Your task to perform on an android device: Do I have any events tomorrow? Image 0: 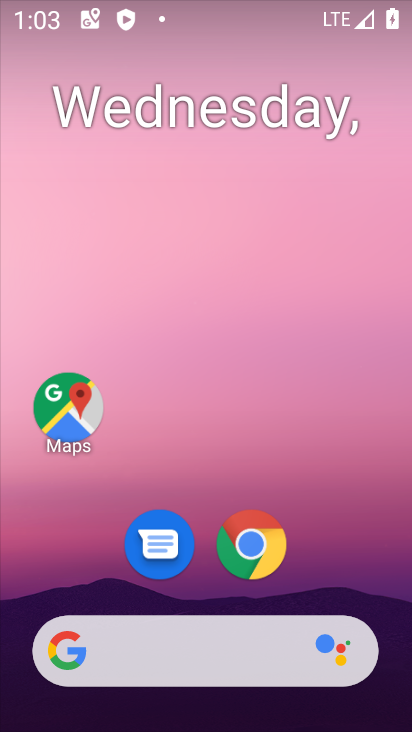
Step 0: drag from (393, 628) to (314, 95)
Your task to perform on an android device: Do I have any events tomorrow? Image 1: 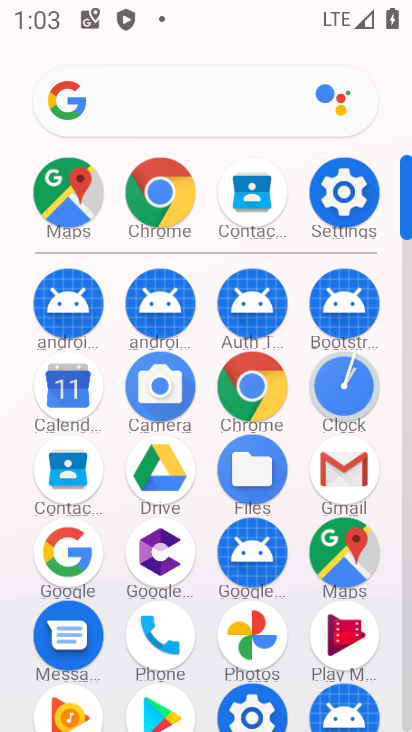
Step 1: click (71, 398)
Your task to perform on an android device: Do I have any events tomorrow? Image 2: 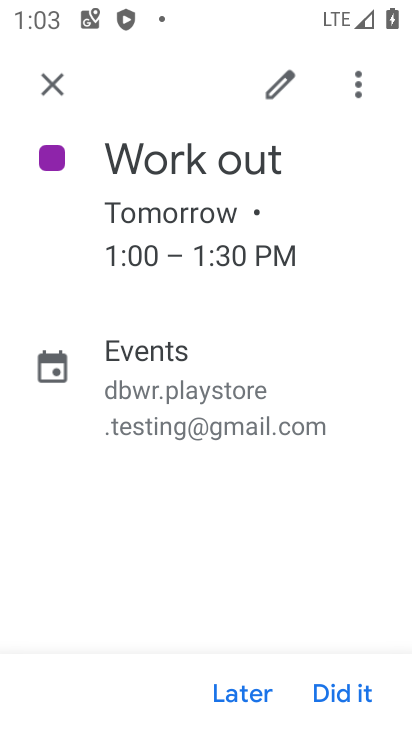
Step 2: click (40, 73)
Your task to perform on an android device: Do I have any events tomorrow? Image 3: 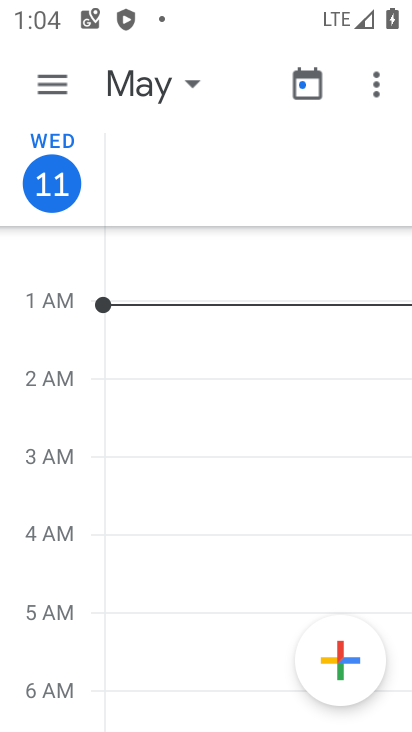
Step 3: click (171, 70)
Your task to perform on an android device: Do I have any events tomorrow? Image 4: 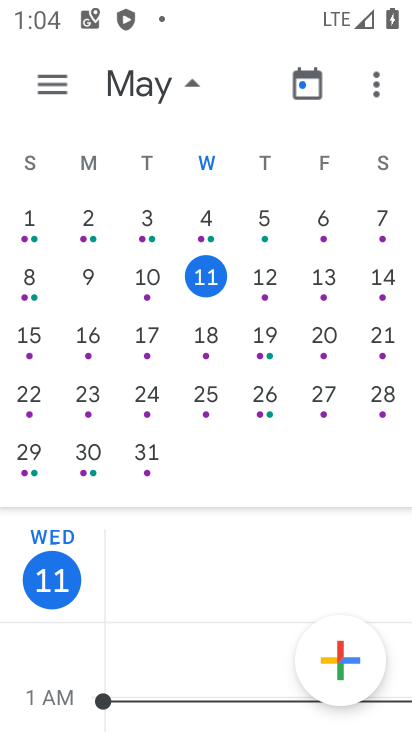
Step 4: click (259, 283)
Your task to perform on an android device: Do I have any events tomorrow? Image 5: 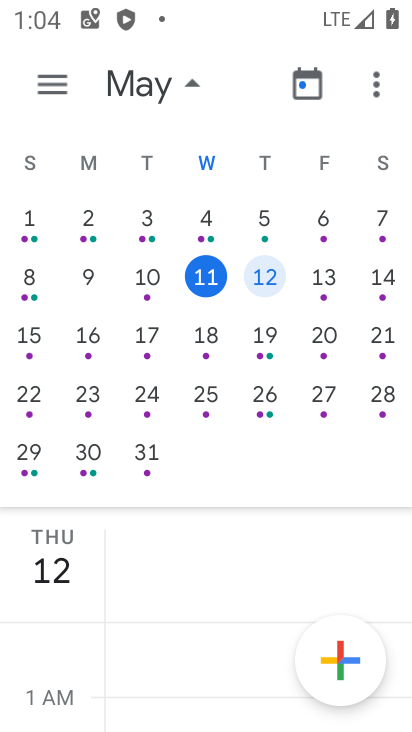
Step 5: task complete